Your task to perform on an android device: toggle data saver in the chrome app Image 0: 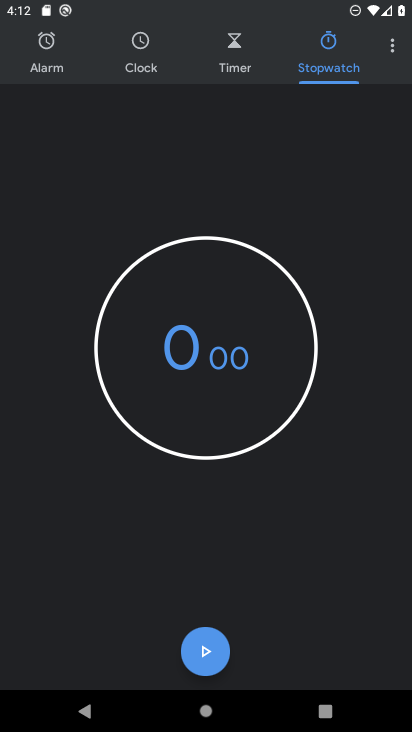
Step 0: press home button
Your task to perform on an android device: toggle data saver in the chrome app Image 1: 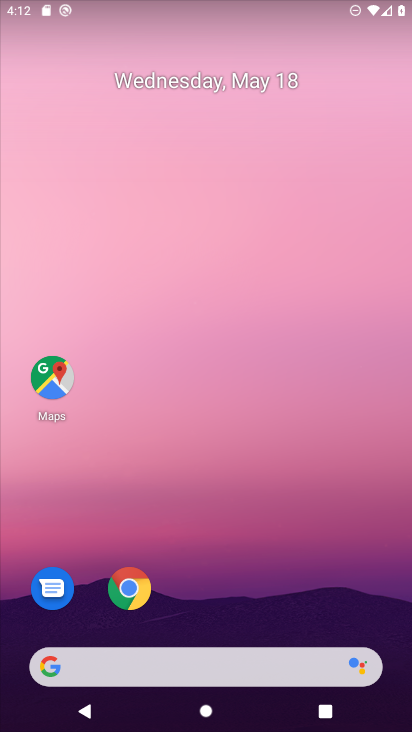
Step 1: click (140, 581)
Your task to perform on an android device: toggle data saver in the chrome app Image 2: 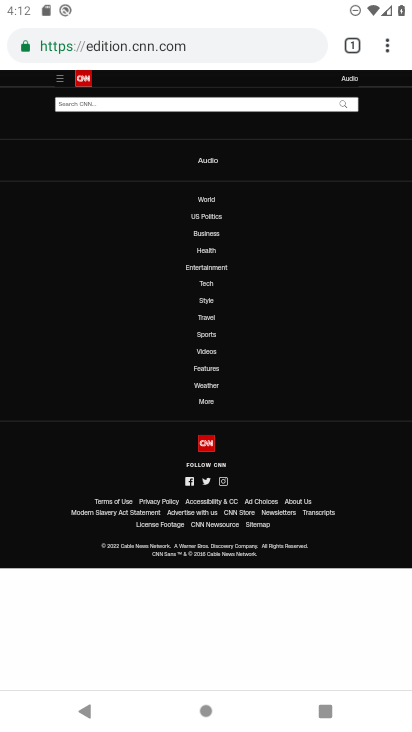
Step 2: click (393, 52)
Your task to perform on an android device: toggle data saver in the chrome app Image 3: 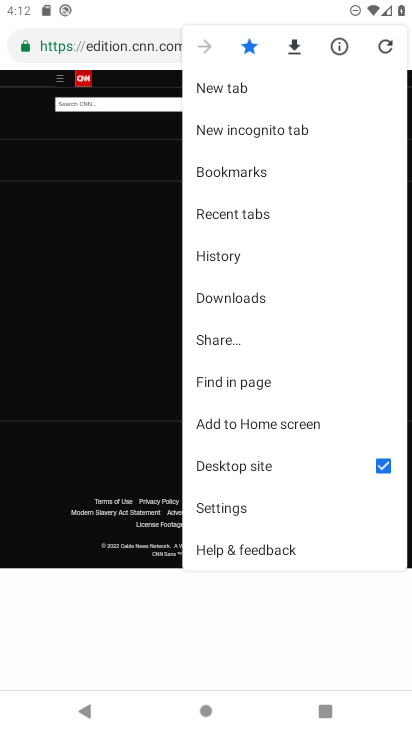
Step 3: click (250, 523)
Your task to perform on an android device: toggle data saver in the chrome app Image 4: 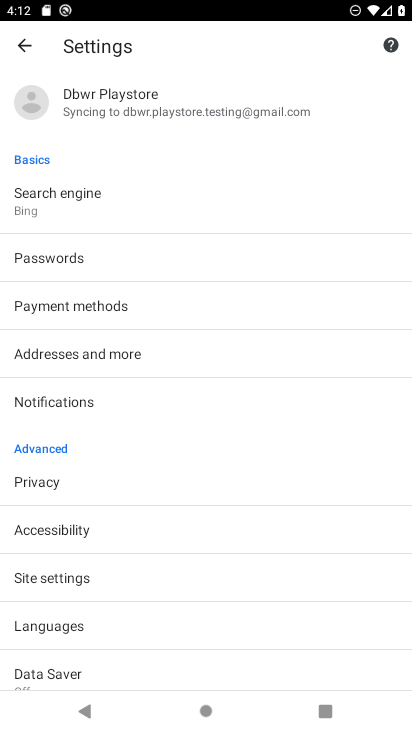
Step 4: click (171, 654)
Your task to perform on an android device: toggle data saver in the chrome app Image 5: 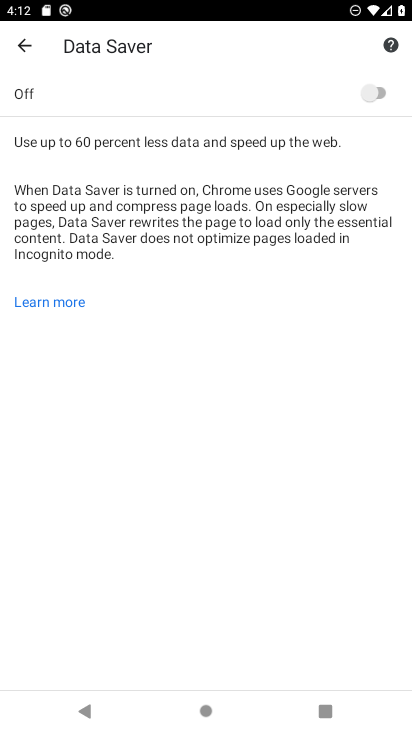
Step 5: click (364, 88)
Your task to perform on an android device: toggle data saver in the chrome app Image 6: 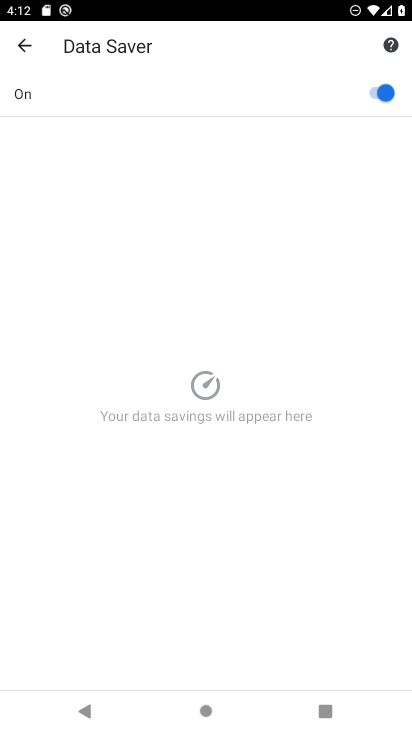
Step 6: task complete